Your task to perform on an android device: add a contact Image 0: 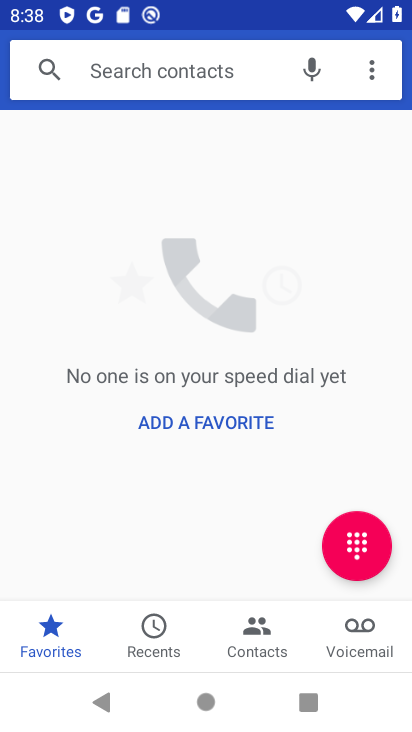
Step 0: click (174, 405)
Your task to perform on an android device: add a contact Image 1: 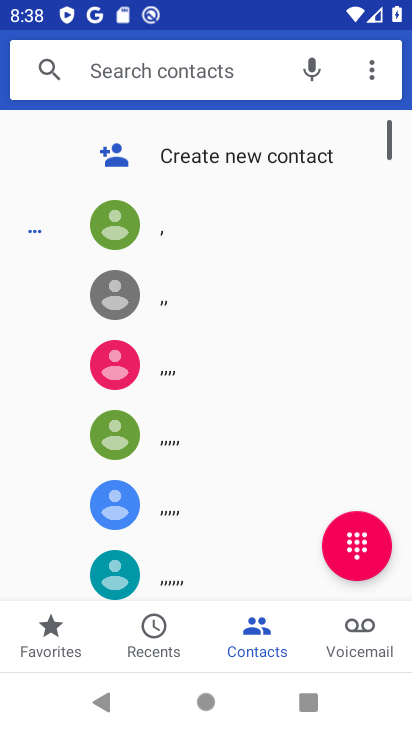
Step 1: click (242, 147)
Your task to perform on an android device: add a contact Image 2: 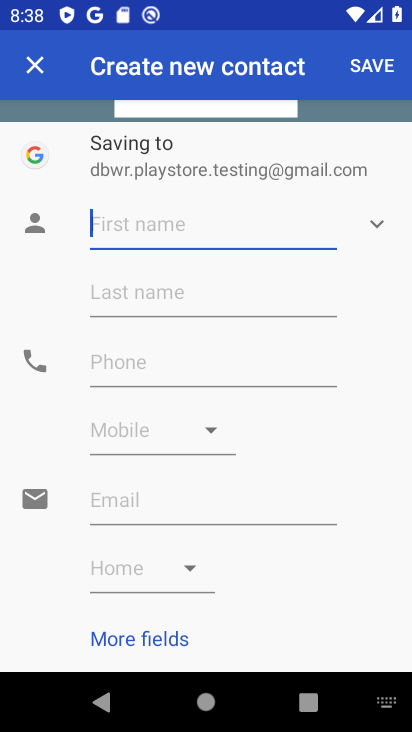
Step 2: type "kjkjjghjghjghj"
Your task to perform on an android device: add a contact Image 3: 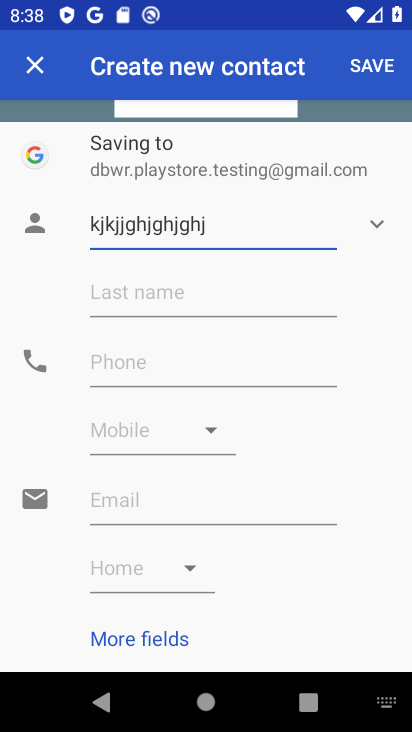
Step 3: click (193, 352)
Your task to perform on an android device: add a contact Image 4: 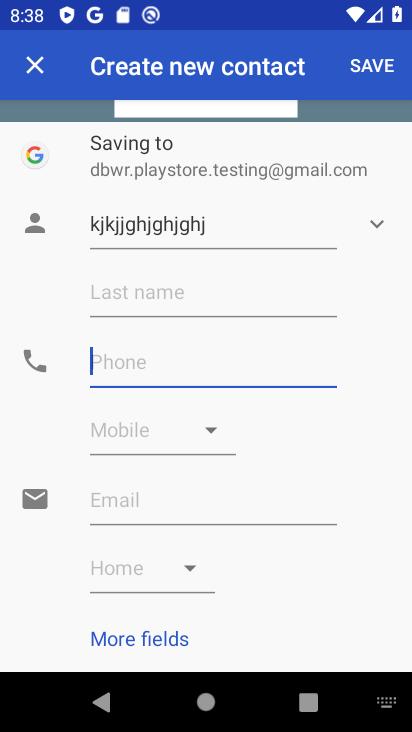
Step 4: type "098777675443"
Your task to perform on an android device: add a contact Image 5: 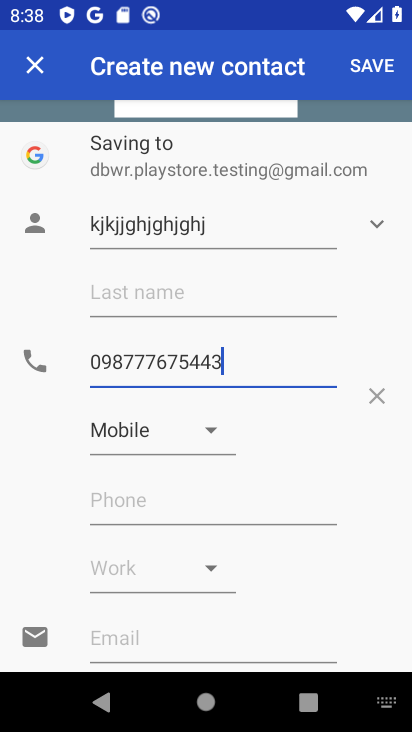
Step 5: click (379, 72)
Your task to perform on an android device: add a contact Image 6: 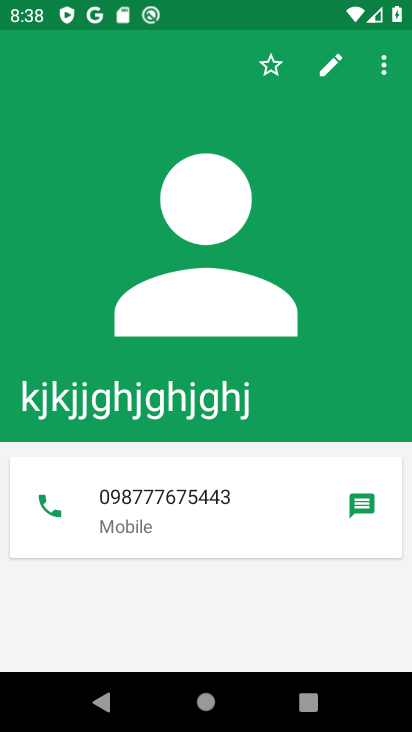
Step 6: task complete